Your task to perform on an android device: delete location history Image 0: 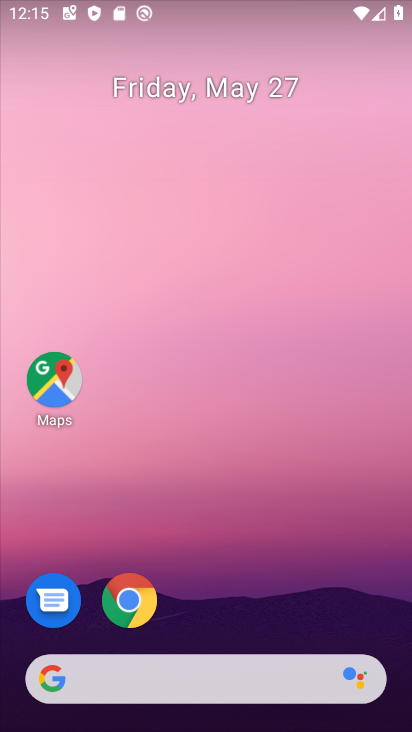
Step 0: drag from (285, 561) to (267, 1)
Your task to perform on an android device: delete location history Image 1: 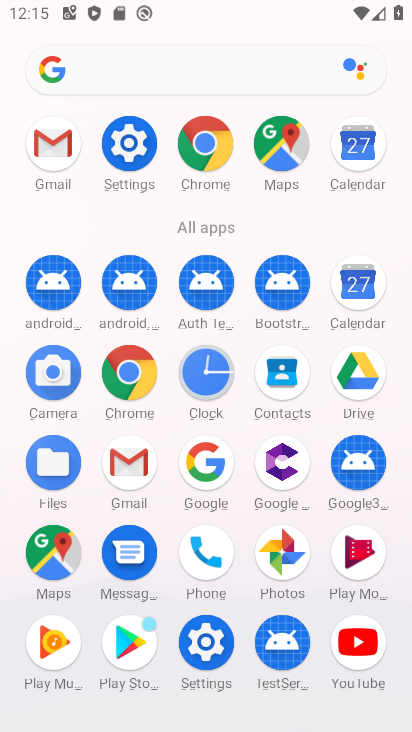
Step 1: drag from (2, 573) to (8, 228)
Your task to perform on an android device: delete location history Image 2: 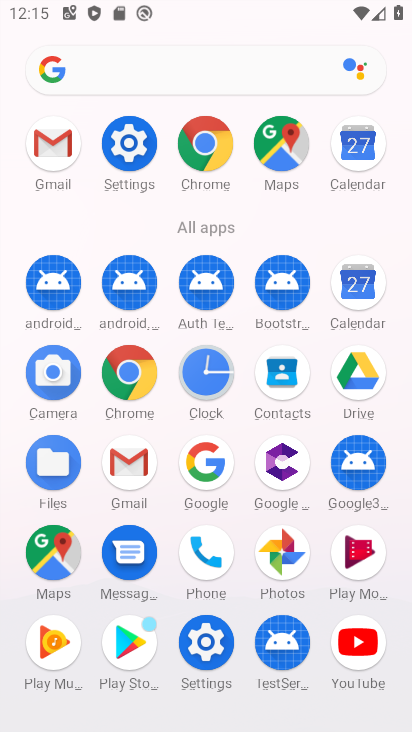
Step 2: click (204, 644)
Your task to perform on an android device: delete location history Image 3: 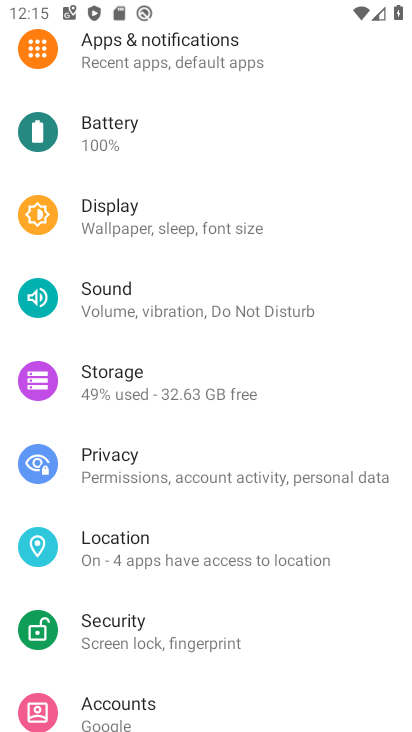
Step 3: drag from (233, 513) to (249, 193)
Your task to perform on an android device: delete location history Image 4: 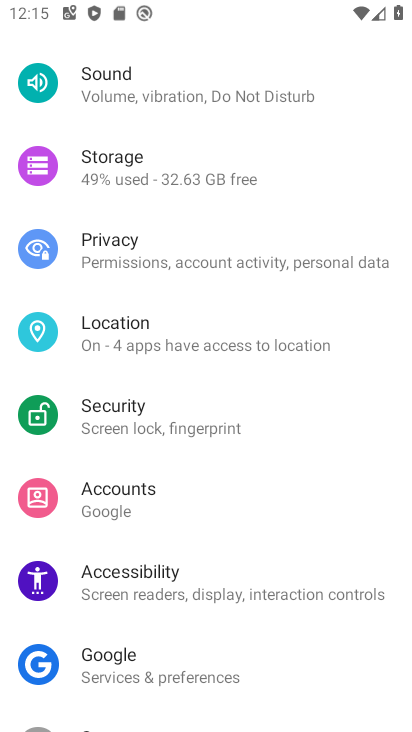
Step 4: click (195, 325)
Your task to perform on an android device: delete location history Image 5: 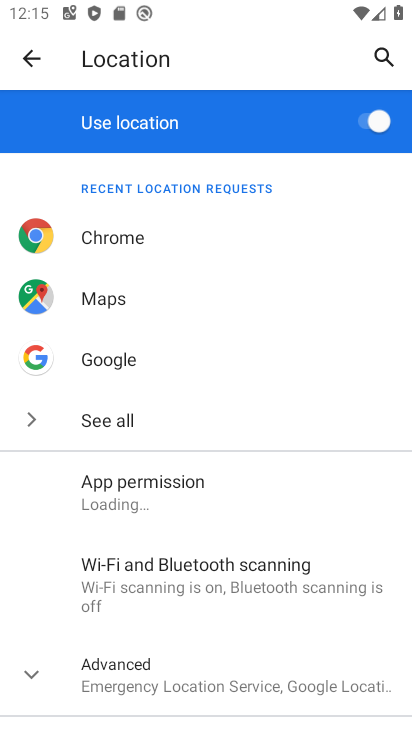
Step 5: click (72, 673)
Your task to perform on an android device: delete location history Image 6: 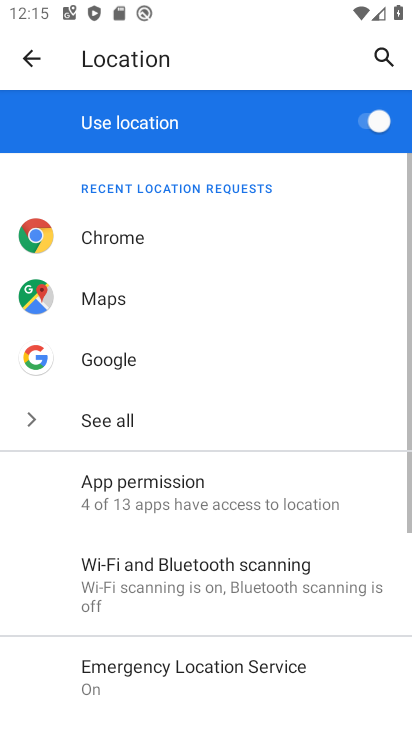
Step 6: drag from (276, 601) to (271, 183)
Your task to perform on an android device: delete location history Image 7: 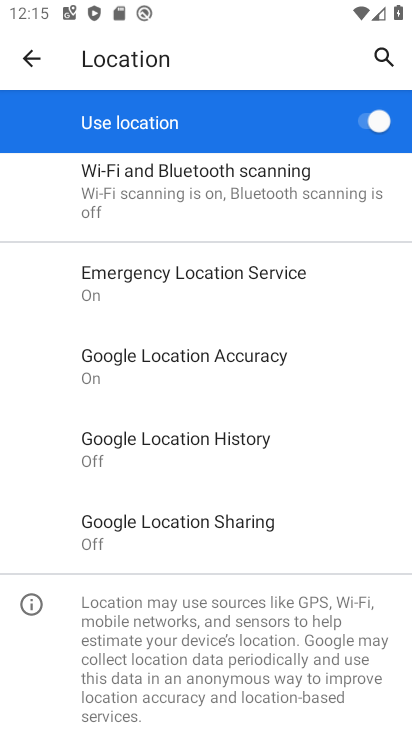
Step 7: click (197, 440)
Your task to perform on an android device: delete location history Image 8: 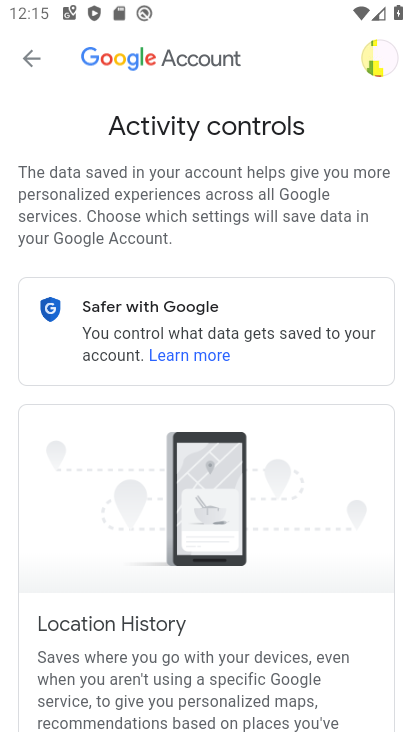
Step 8: drag from (302, 594) to (299, 146)
Your task to perform on an android device: delete location history Image 9: 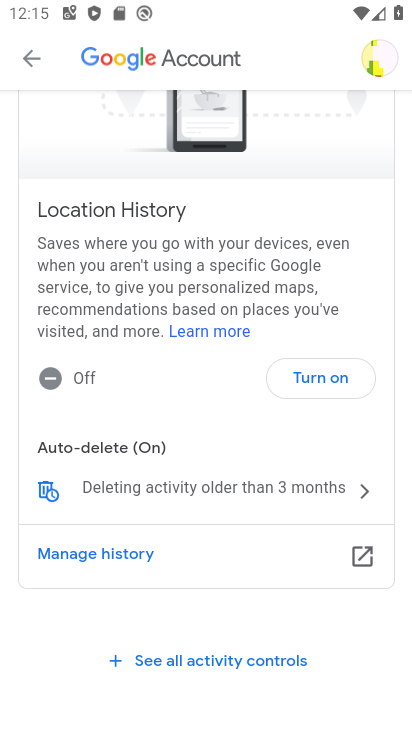
Step 9: click (133, 494)
Your task to perform on an android device: delete location history Image 10: 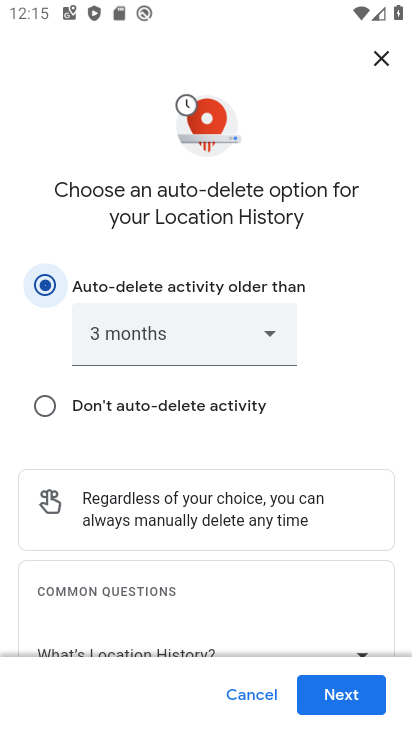
Step 10: click (316, 690)
Your task to perform on an android device: delete location history Image 11: 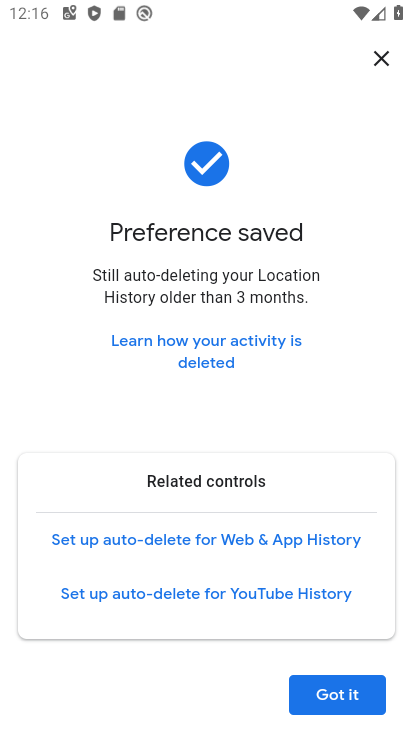
Step 11: task complete